Your task to perform on an android device: install app "Clock" Image 0: 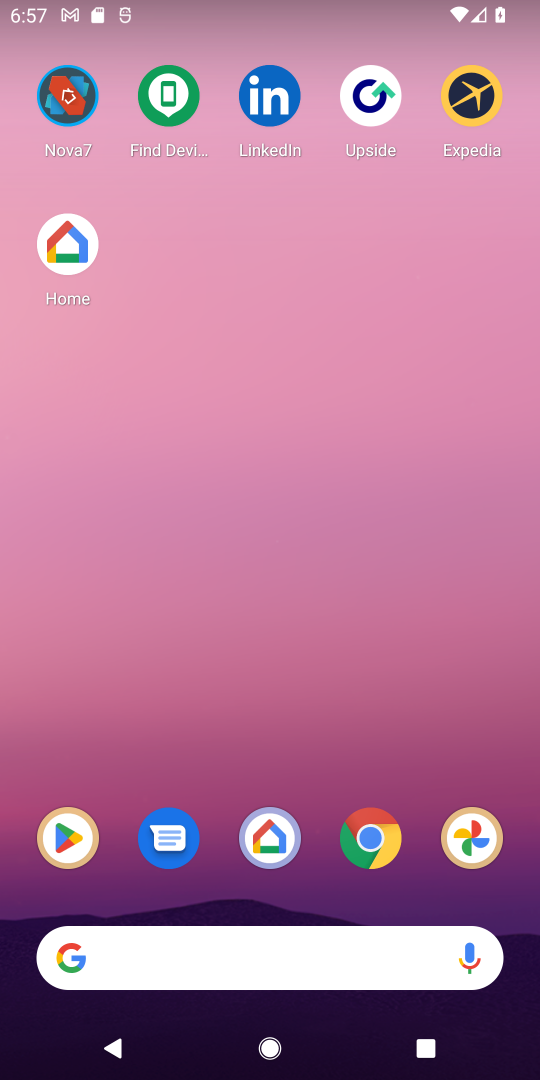
Step 0: click (74, 831)
Your task to perform on an android device: install app "Clock" Image 1: 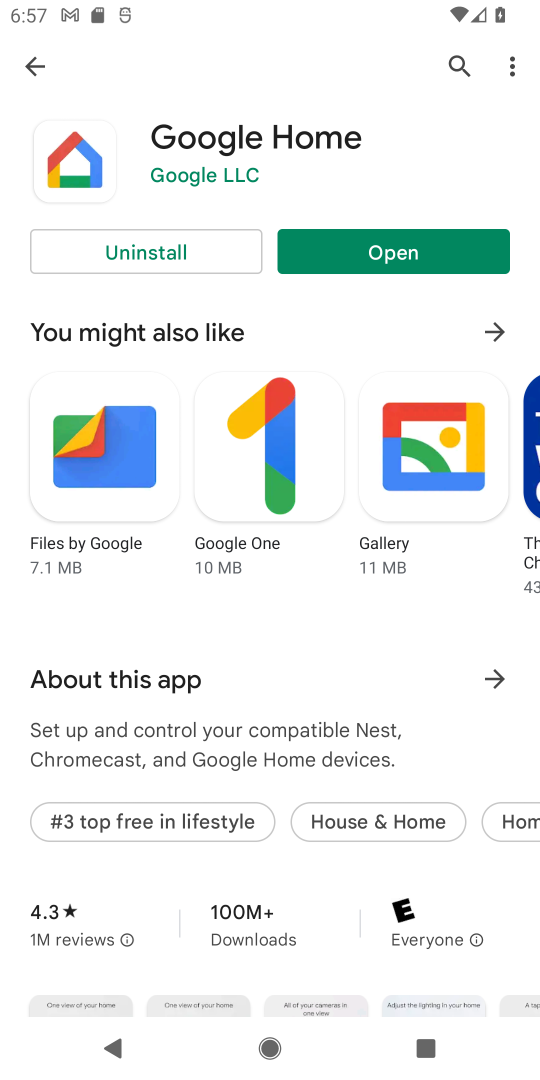
Step 1: click (461, 76)
Your task to perform on an android device: install app "Clock" Image 2: 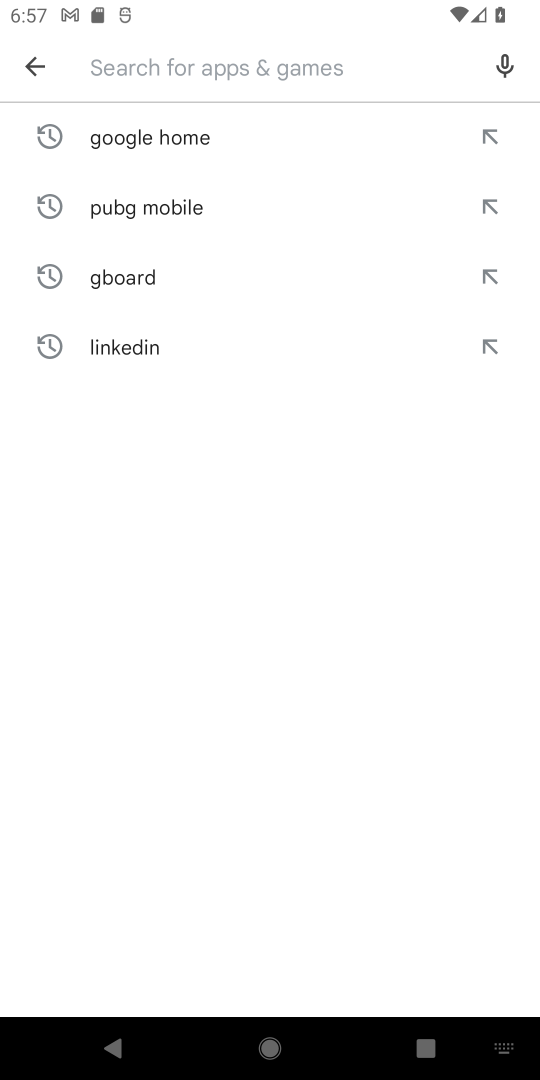
Step 2: type "clock"
Your task to perform on an android device: install app "Clock" Image 3: 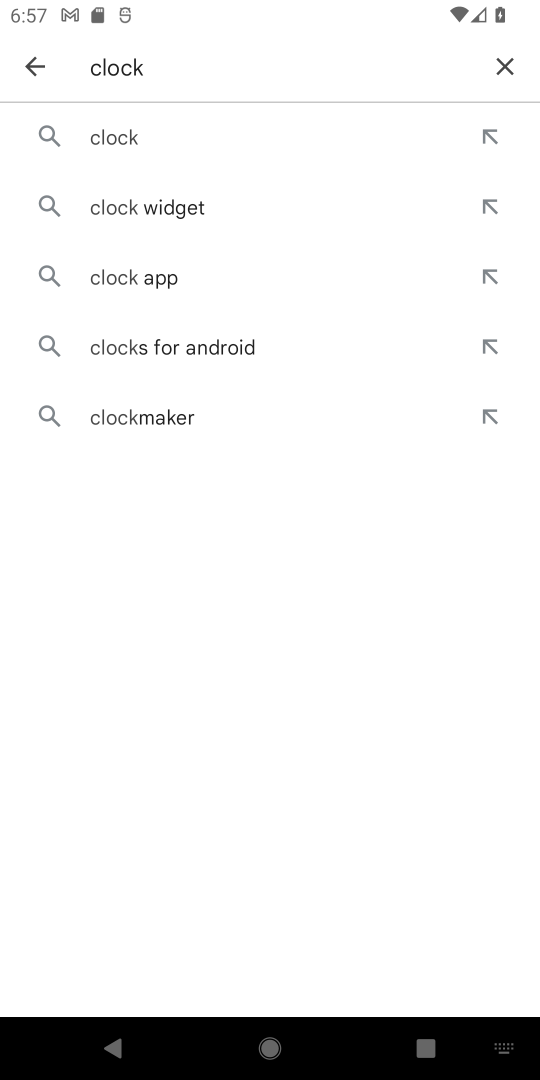
Step 3: click (108, 148)
Your task to perform on an android device: install app "Clock" Image 4: 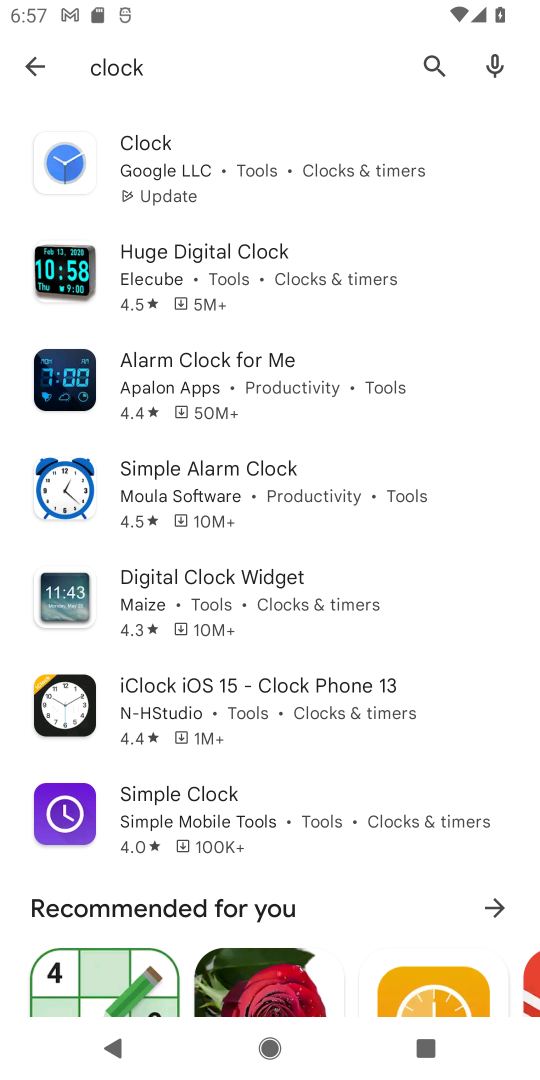
Step 4: click (176, 175)
Your task to perform on an android device: install app "Clock" Image 5: 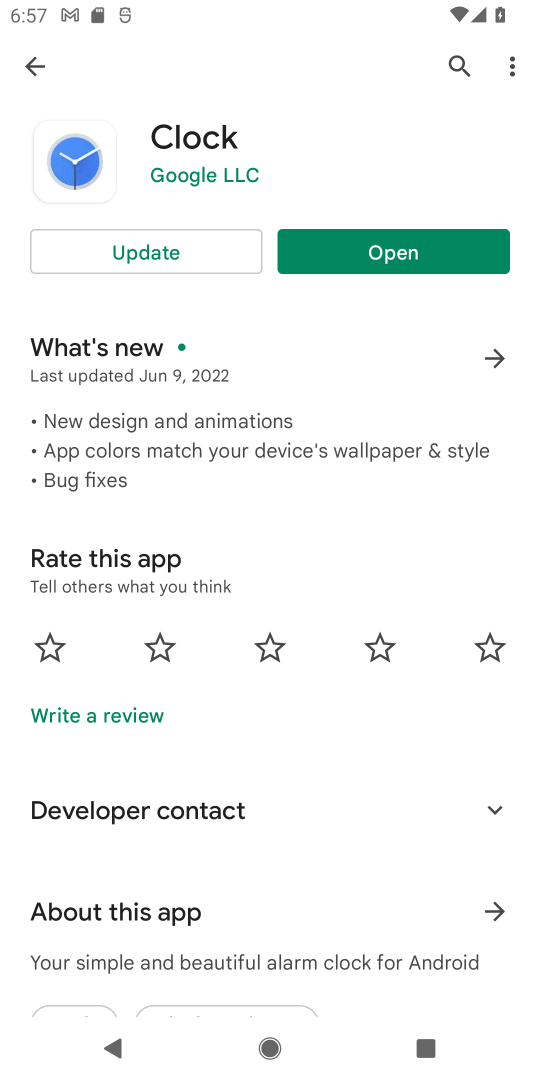
Step 5: task complete